Your task to perform on an android device: turn on notifications settings in the gmail app Image 0: 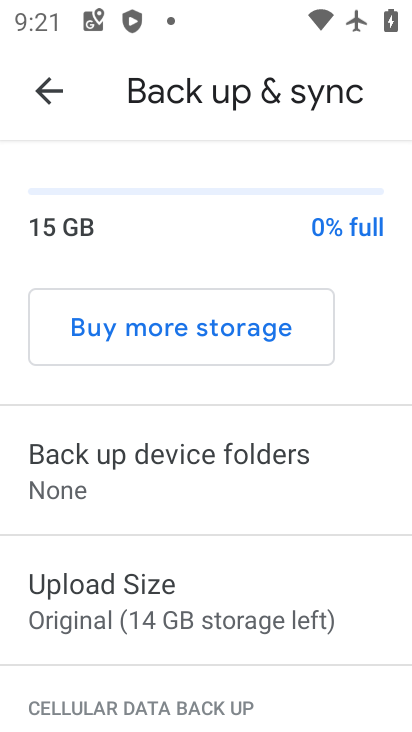
Step 0: press home button
Your task to perform on an android device: turn on notifications settings in the gmail app Image 1: 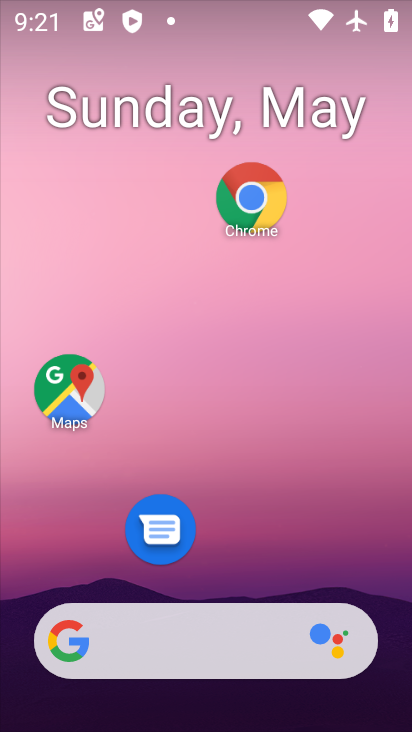
Step 1: drag from (242, 559) to (237, 67)
Your task to perform on an android device: turn on notifications settings in the gmail app Image 2: 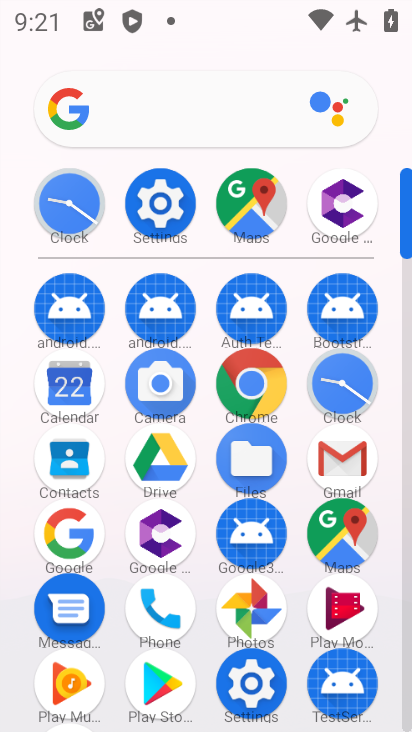
Step 2: click (340, 450)
Your task to perform on an android device: turn on notifications settings in the gmail app Image 3: 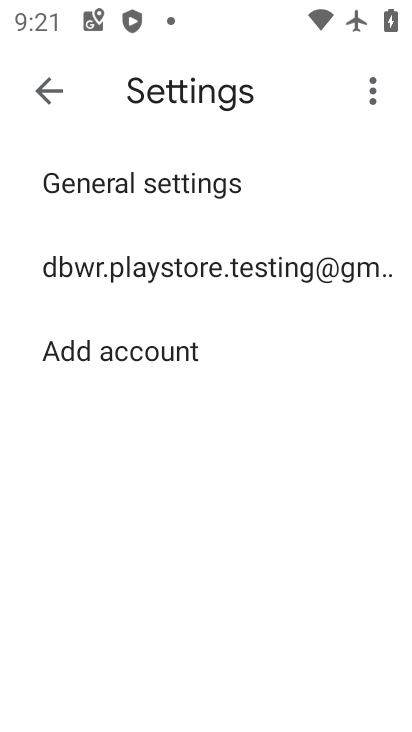
Step 3: click (296, 257)
Your task to perform on an android device: turn on notifications settings in the gmail app Image 4: 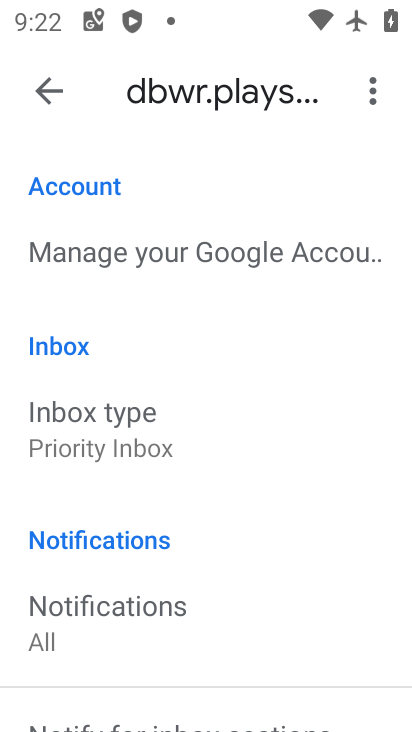
Step 4: drag from (201, 682) to (246, 352)
Your task to perform on an android device: turn on notifications settings in the gmail app Image 5: 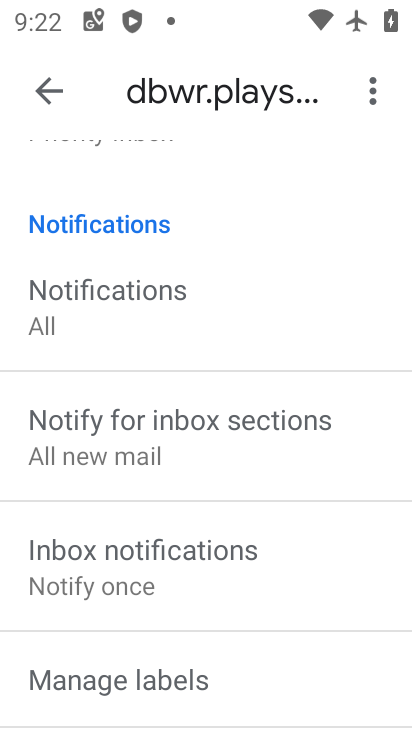
Step 5: drag from (149, 662) to (153, 406)
Your task to perform on an android device: turn on notifications settings in the gmail app Image 6: 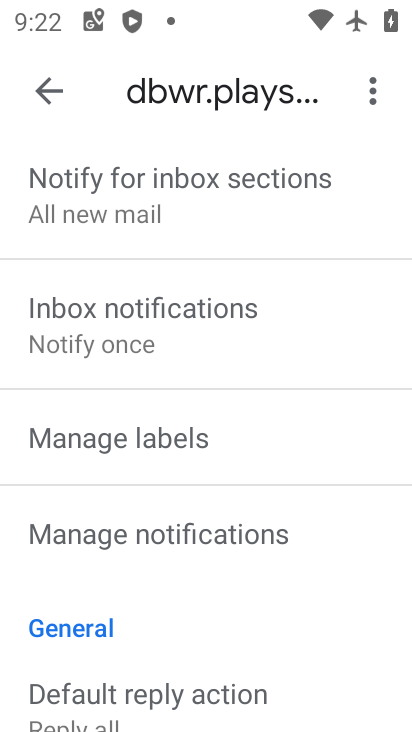
Step 6: click (103, 550)
Your task to perform on an android device: turn on notifications settings in the gmail app Image 7: 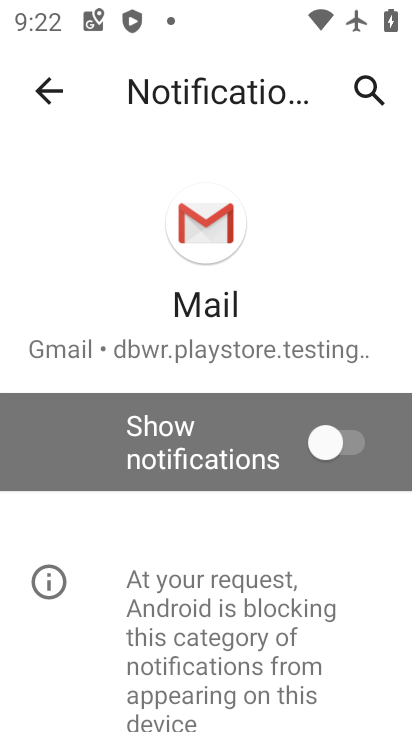
Step 7: click (328, 444)
Your task to perform on an android device: turn on notifications settings in the gmail app Image 8: 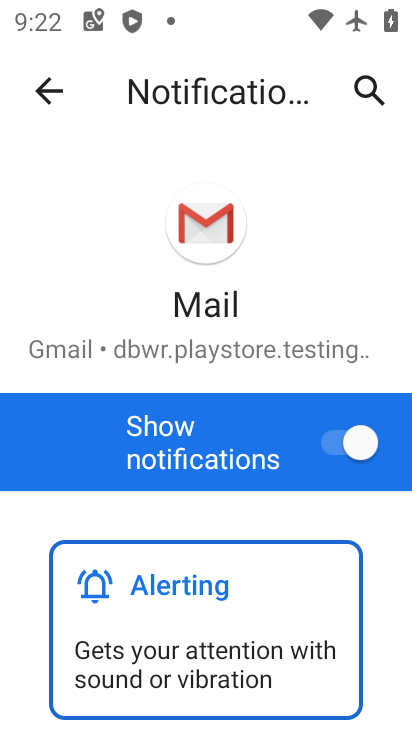
Step 8: task complete